Your task to perform on an android device: Open Chrome and go to settings Image 0: 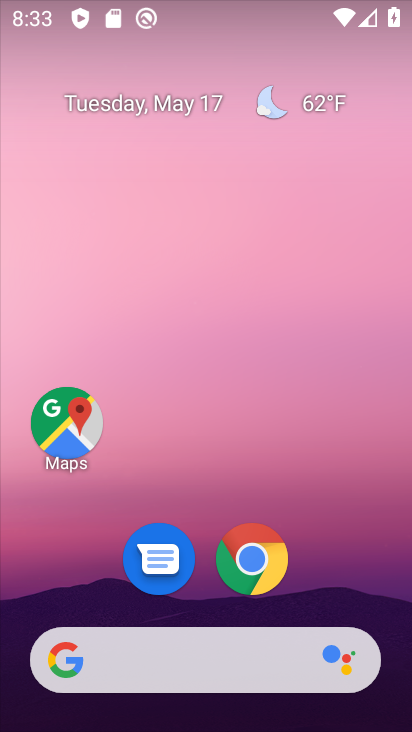
Step 0: drag from (373, 390) to (248, 175)
Your task to perform on an android device: Open Chrome and go to settings Image 1: 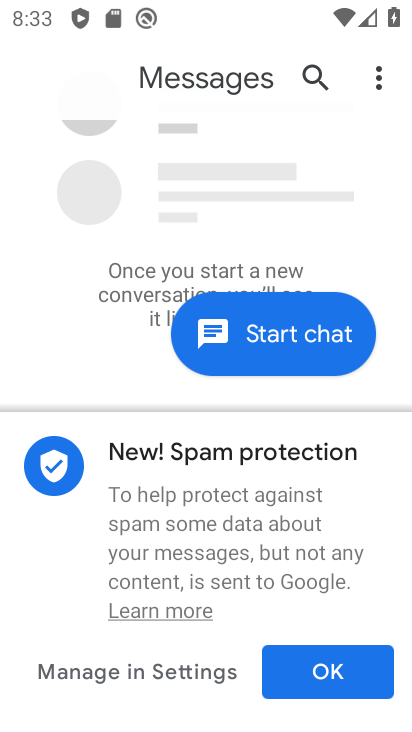
Step 1: press home button
Your task to perform on an android device: Open Chrome and go to settings Image 2: 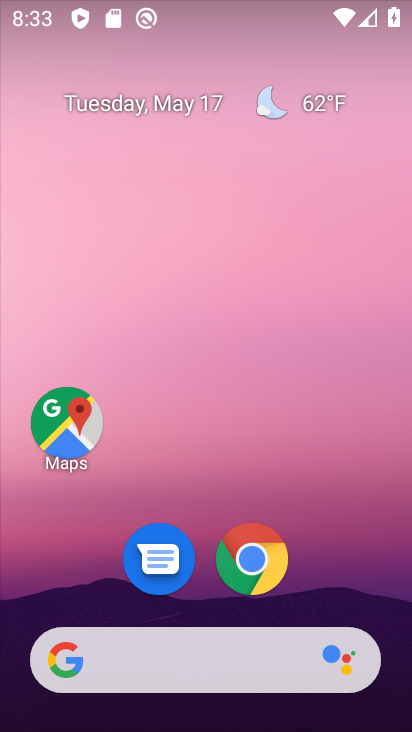
Step 2: click (249, 567)
Your task to perform on an android device: Open Chrome and go to settings Image 3: 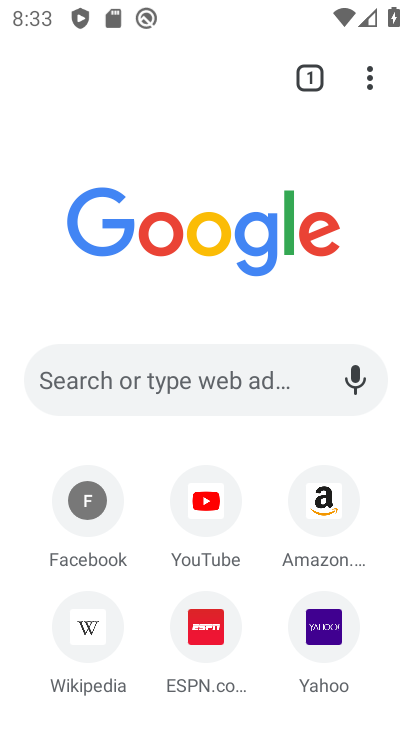
Step 3: click (363, 108)
Your task to perform on an android device: Open Chrome and go to settings Image 4: 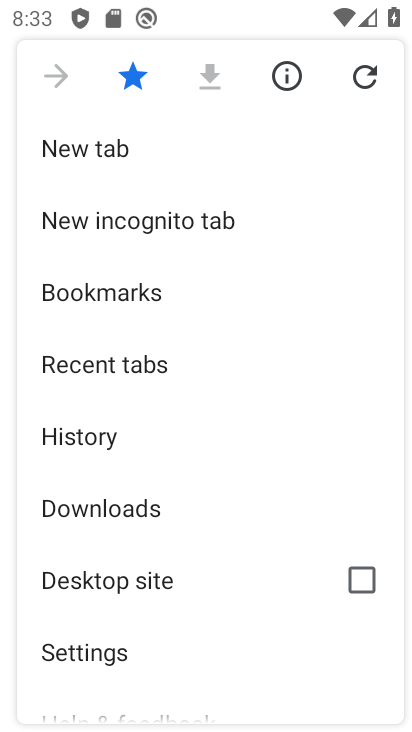
Step 4: click (75, 637)
Your task to perform on an android device: Open Chrome and go to settings Image 5: 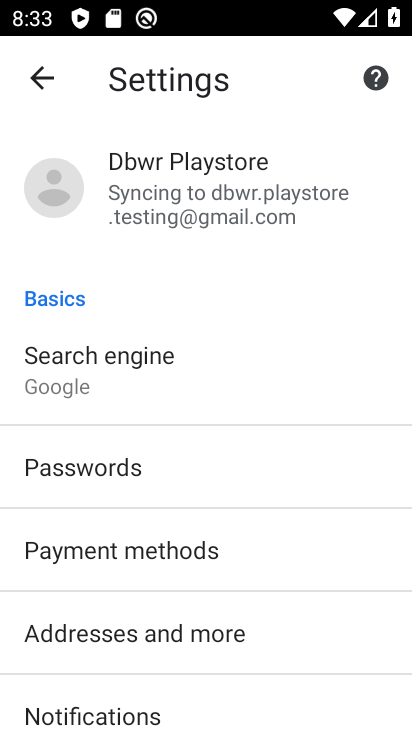
Step 5: task complete